Your task to perform on an android device: turn on showing notifications on the lock screen Image 0: 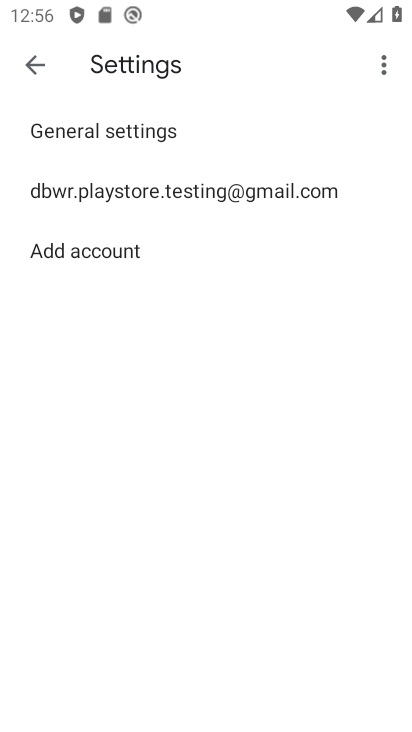
Step 0: press home button
Your task to perform on an android device: turn on showing notifications on the lock screen Image 1: 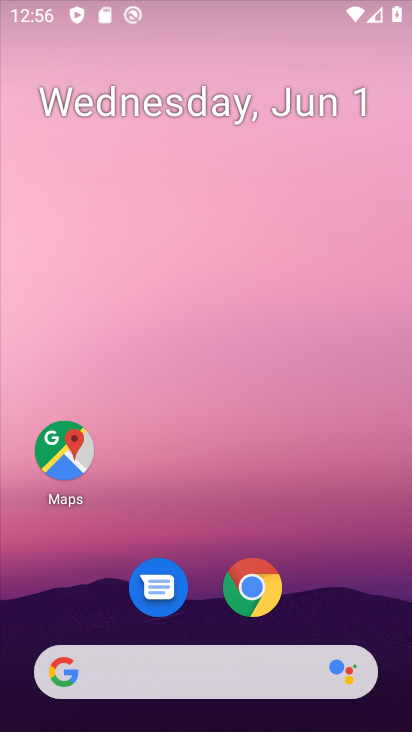
Step 1: drag from (248, 537) to (254, 93)
Your task to perform on an android device: turn on showing notifications on the lock screen Image 2: 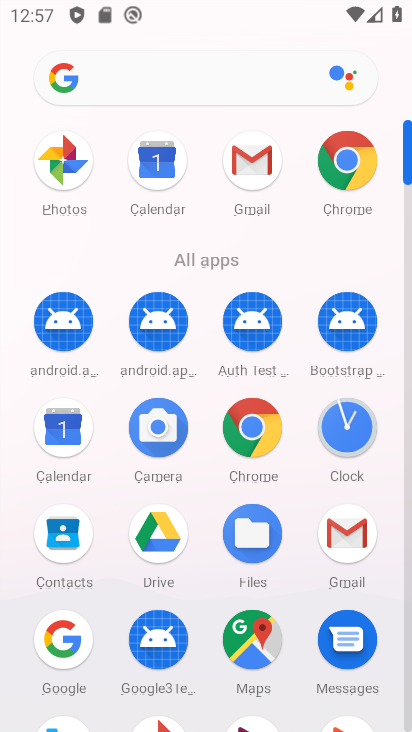
Step 2: drag from (291, 593) to (291, 406)
Your task to perform on an android device: turn on showing notifications on the lock screen Image 3: 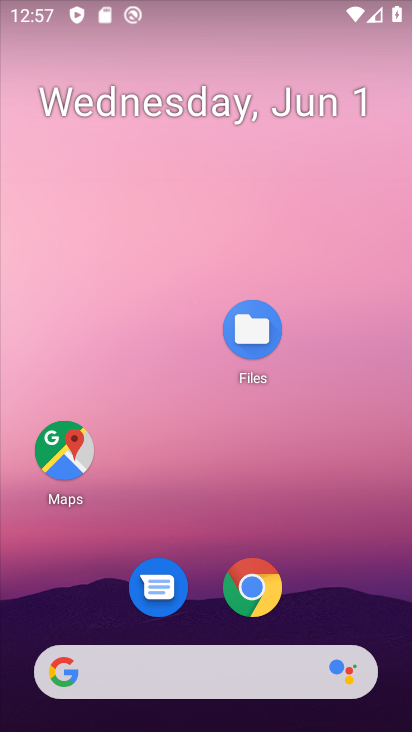
Step 3: drag from (343, 525) to (347, 147)
Your task to perform on an android device: turn on showing notifications on the lock screen Image 4: 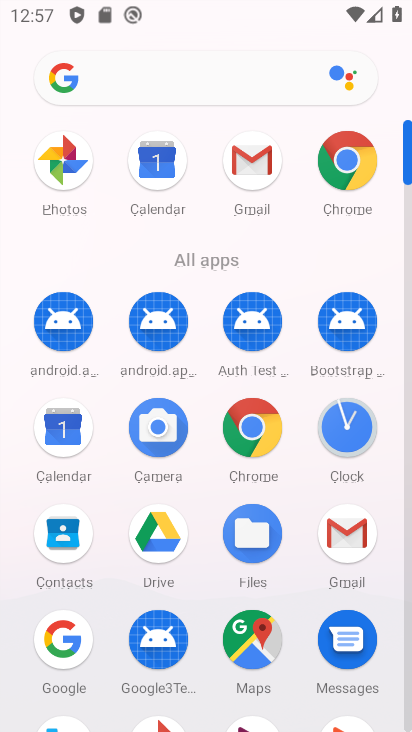
Step 4: click (406, 566)
Your task to perform on an android device: turn on showing notifications on the lock screen Image 5: 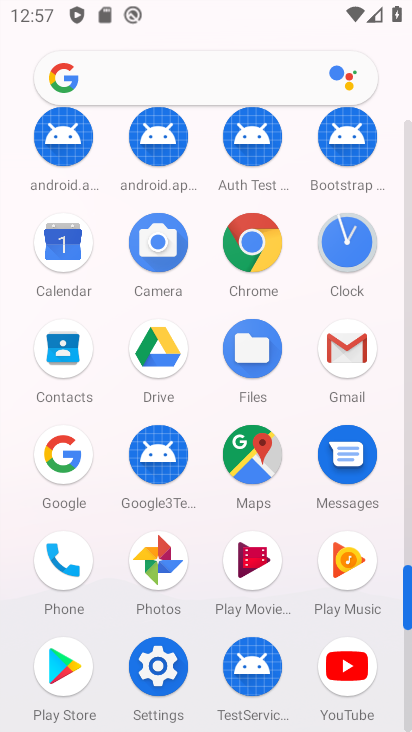
Step 5: click (406, 566)
Your task to perform on an android device: turn on showing notifications on the lock screen Image 6: 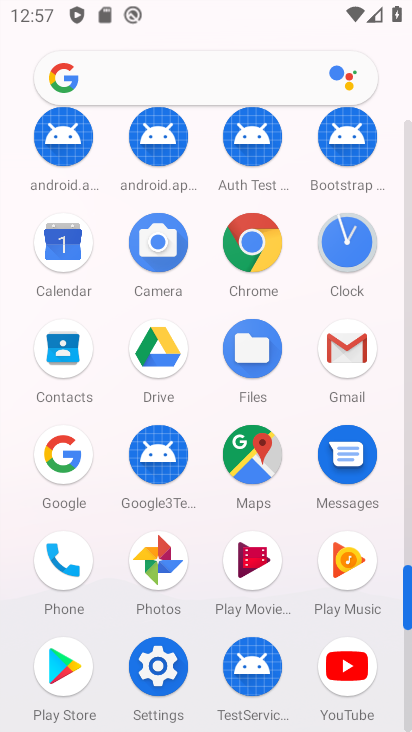
Step 6: click (168, 664)
Your task to perform on an android device: turn on showing notifications on the lock screen Image 7: 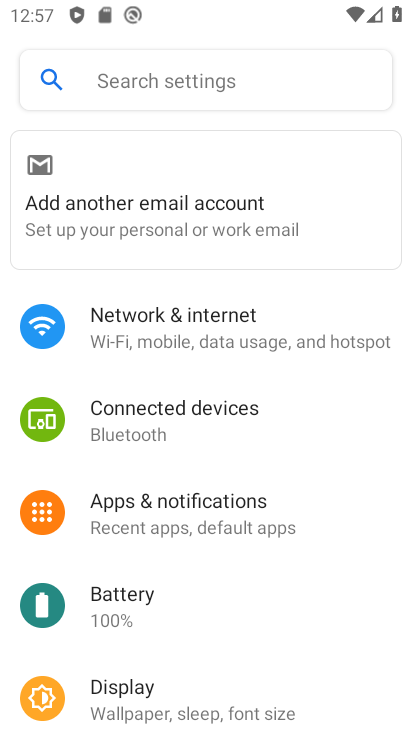
Step 7: click (162, 541)
Your task to perform on an android device: turn on showing notifications on the lock screen Image 8: 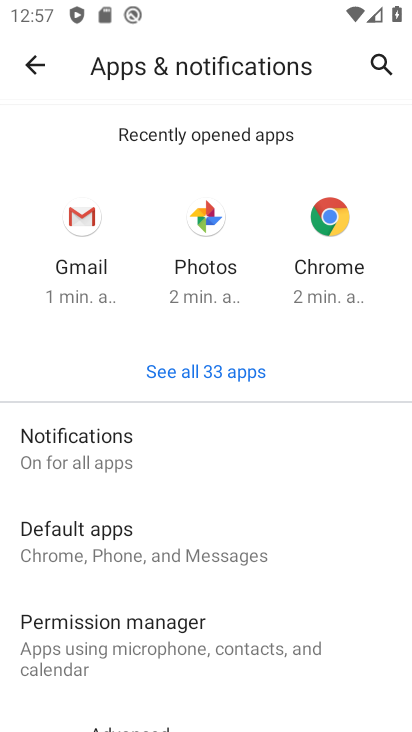
Step 8: click (109, 462)
Your task to perform on an android device: turn on showing notifications on the lock screen Image 9: 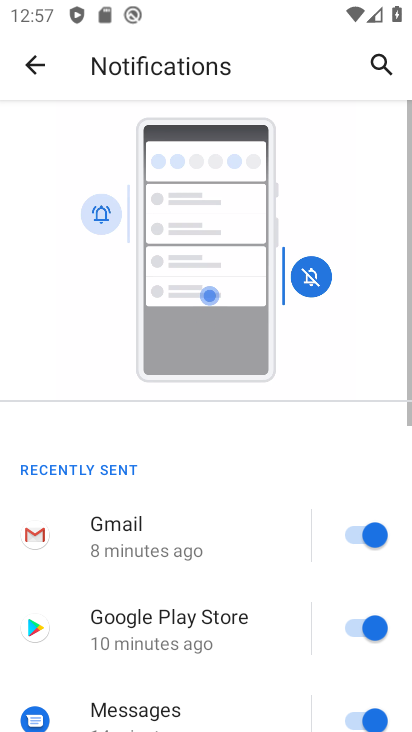
Step 9: drag from (227, 600) to (286, 128)
Your task to perform on an android device: turn on showing notifications on the lock screen Image 10: 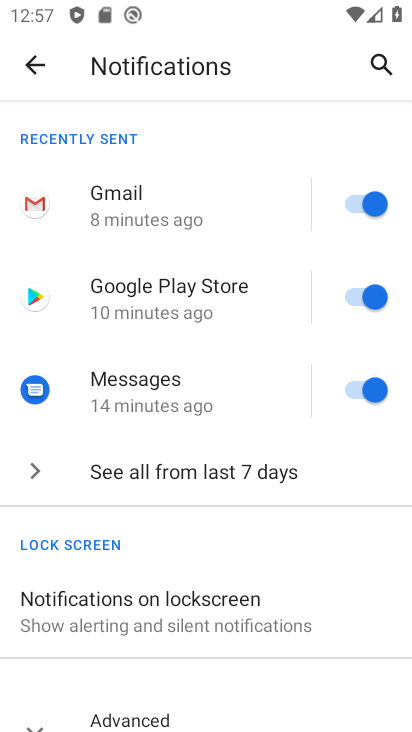
Step 10: click (156, 624)
Your task to perform on an android device: turn on showing notifications on the lock screen Image 11: 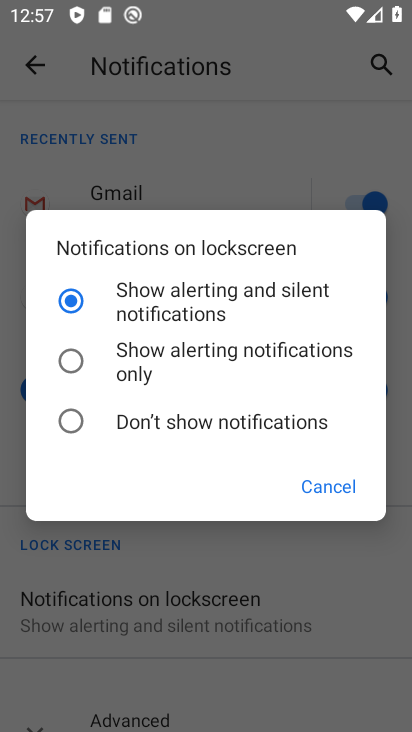
Step 11: click (206, 367)
Your task to perform on an android device: turn on showing notifications on the lock screen Image 12: 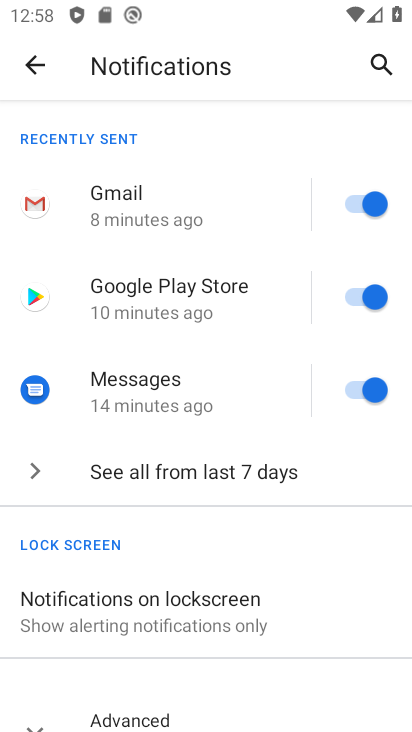
Step 12: task complete